Your task to perform on an android device: open wifi settings Image 0: 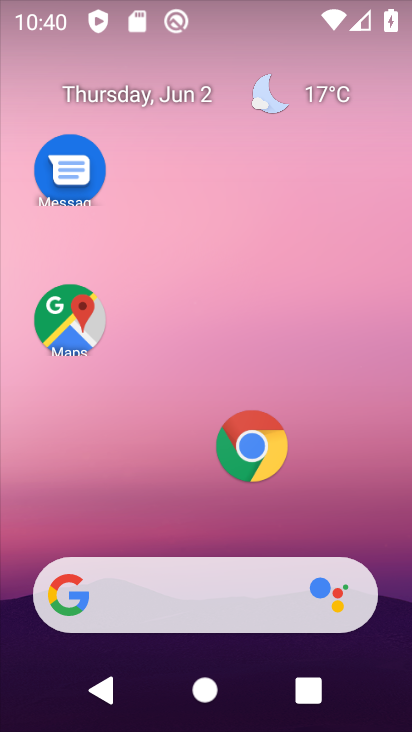
Step 0: press home button
Your task to perform on an android device: open wifi settings Image 1: 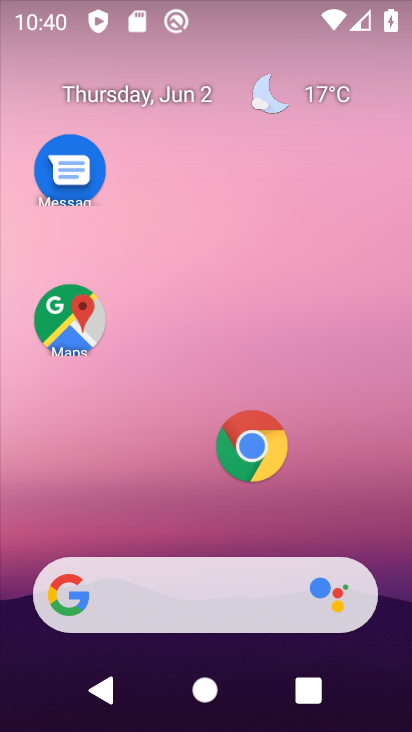
Step 1: drag from (346, 20) to (294, 440)
Your task to perform on an android device: open wifi settings Image 2: 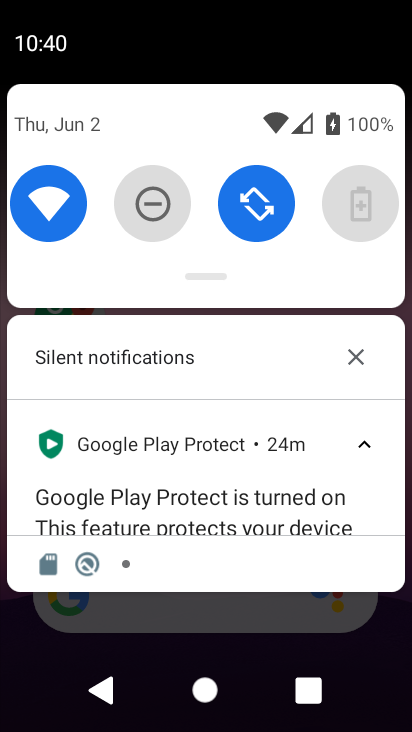
Step 2: click (43, 211)
Your task to perform on an android device: open wifi settings Image 3: 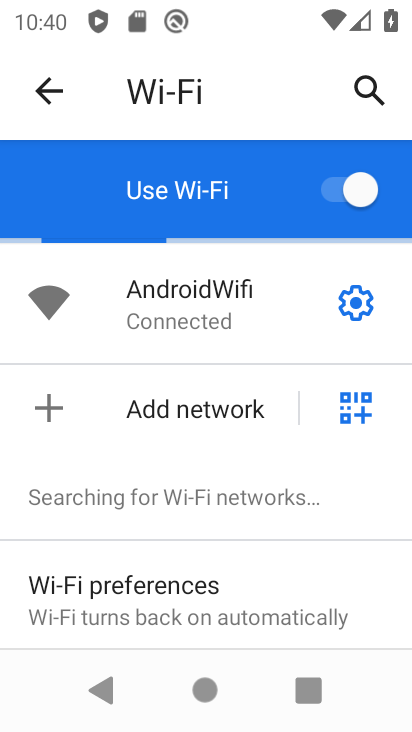
Step 3: task complete